Your task to perform on an android device: check out phone information Image 0: 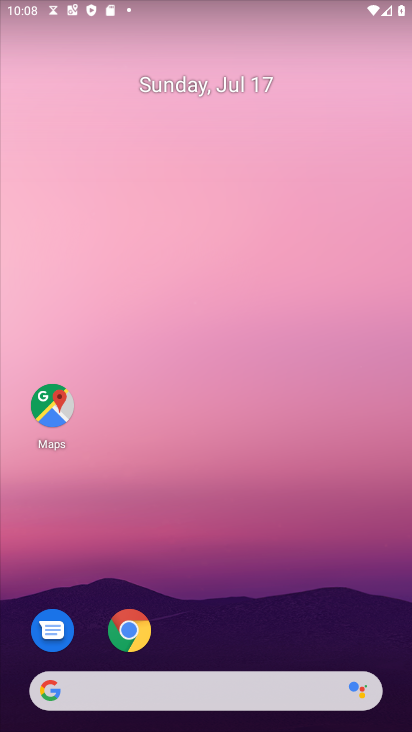
Step 0: drag from (265, 691) to (281, 57)
Your task to perform on an android device: check out phone information Image 1: 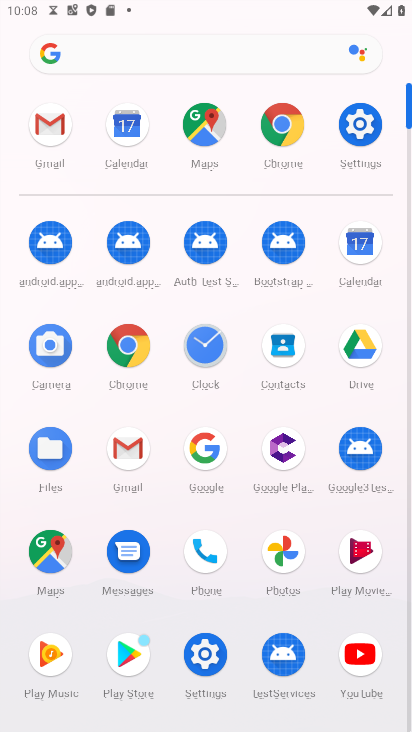
Step 1: click (360, 131)
Your task to perform on an android device: check out phone information Image 2: 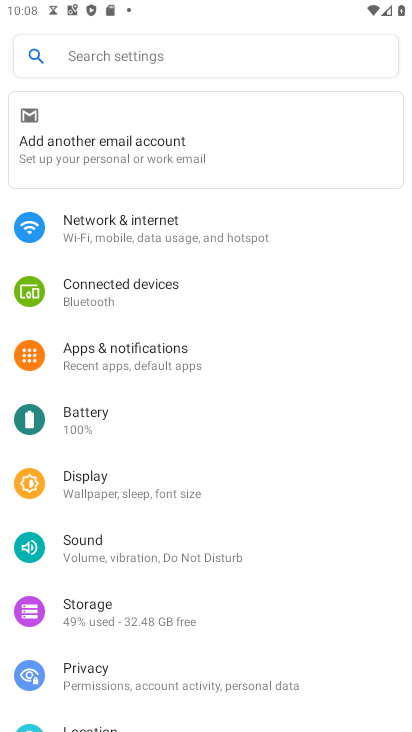
Step 2: drag from (119, 717) to (171, 3)
Your task to perform on an android device: check out phone information Image 3: 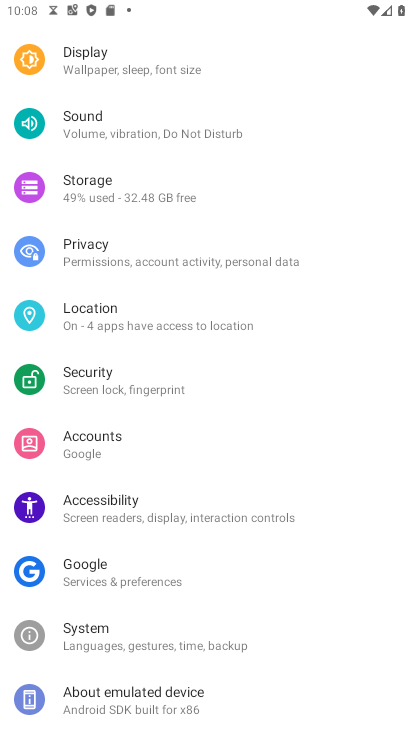
Step 3: click (126, 715)
Your task to perform on an android device: check out phone information Image 4: 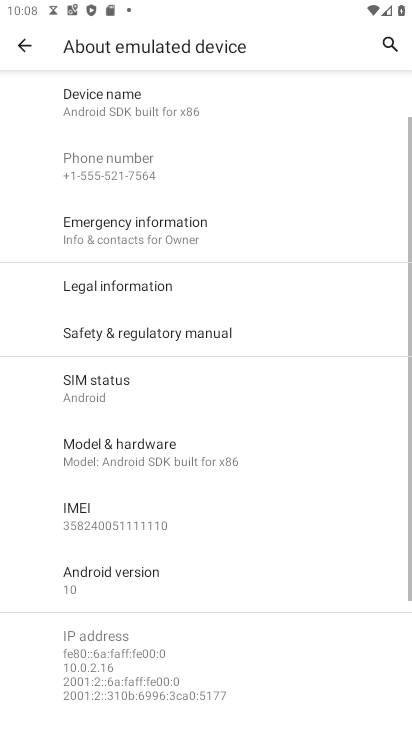
Step 4: task complete